Your task to perform on an android device: Go to sound settings Image 0: 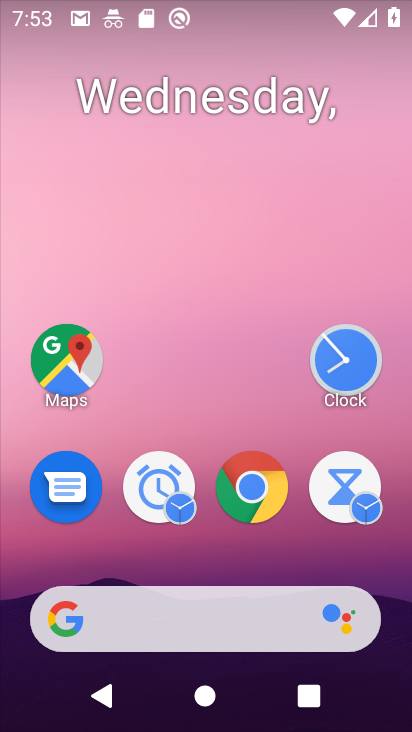
Step 0: drag from (355, 684) to (246, 103)
Your task to perform on an android device: Go to sound settings Image 1: 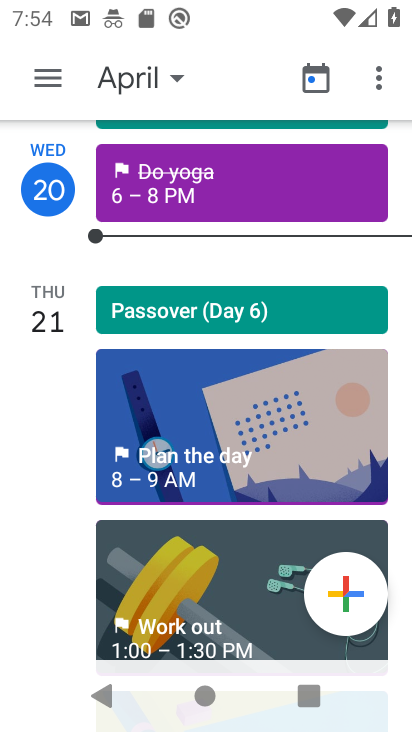
Step 1: press home button
Your task to perform on an android device: Go to sound settings Image 2: 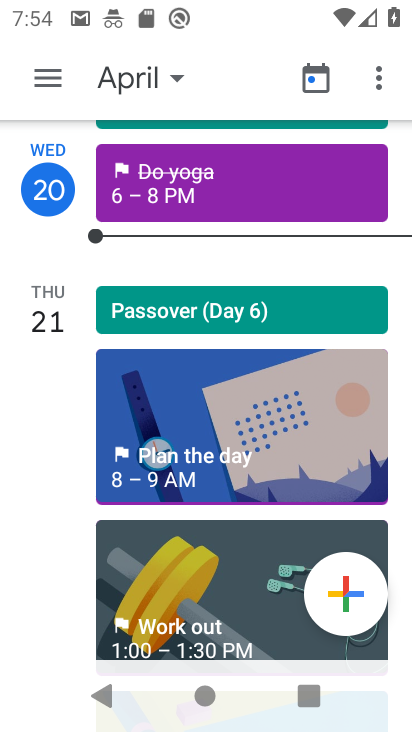
Step 2: press home button
Your task to perform on an android device: Go to sound settings Image 3: 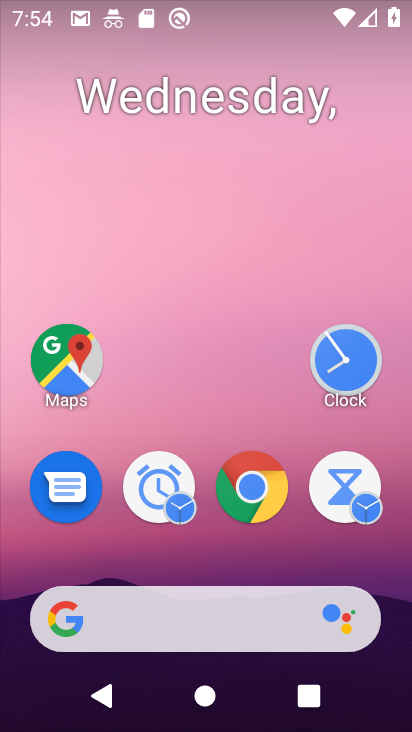
Step 3: drag from (165, 647) to (157, 244)
Your task to perform on an android device: Go to sound settings Image 4: 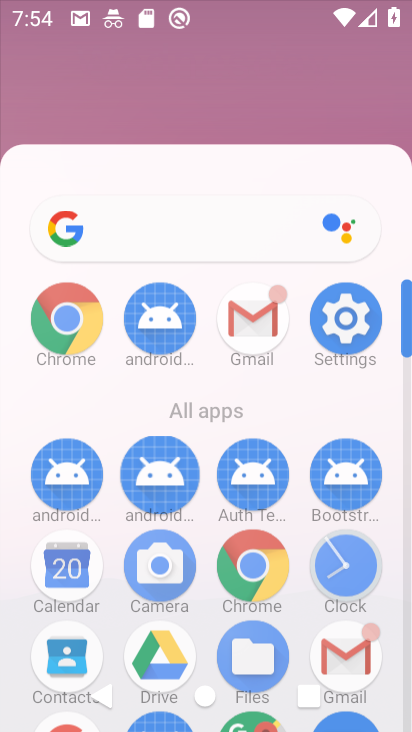
Step 4: drag from (265, 613) to (254, 110)
Your task to perform on an android device: Go to sound settings Image 5: 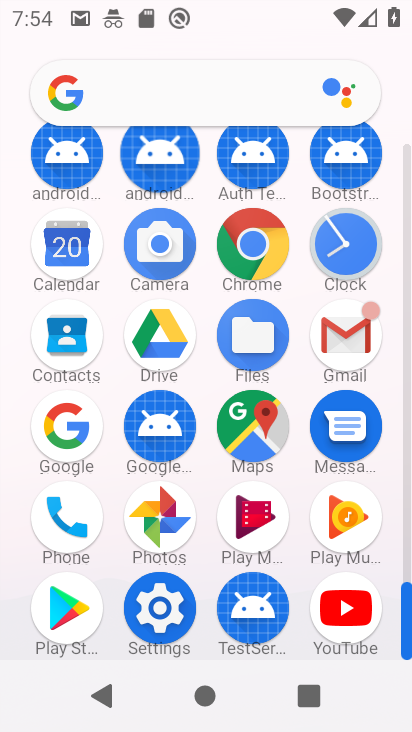
Step 5: click (159, 617)
Your task to perform on an android device: Go to sound settings Image 6: 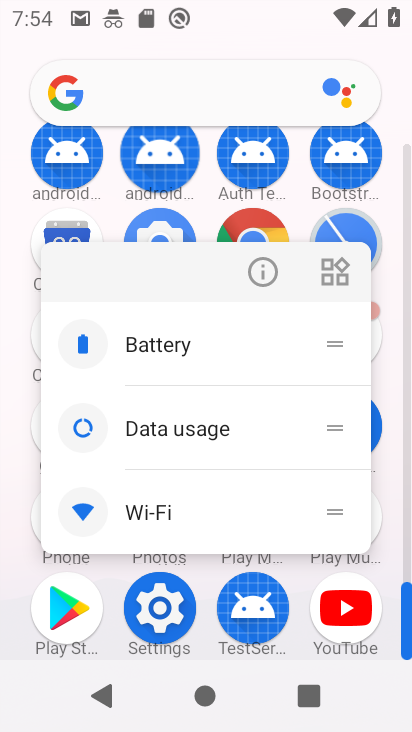
Step 6: click (159, 617)
Your task to perform on an android device: Go to sound settings Image 7: 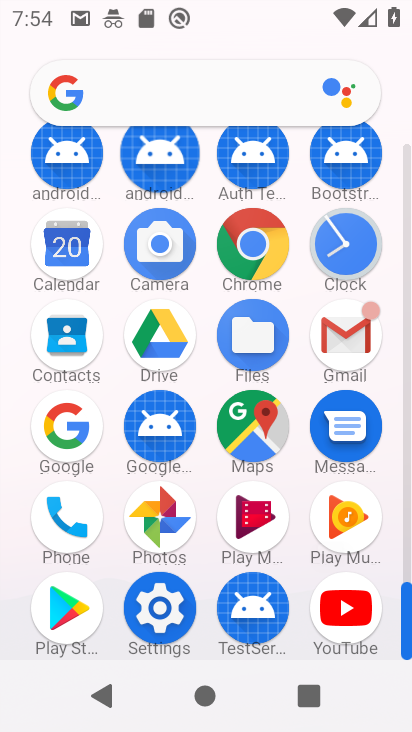
Step 7: click (159, 617)
Your task to perform on an android device: Go to sound settings Image 8: 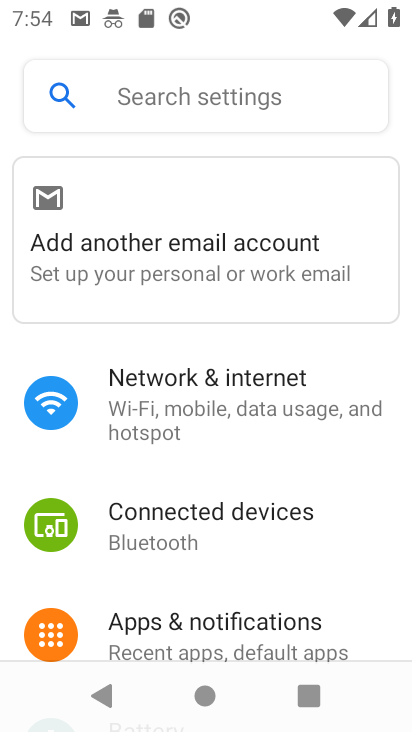
Step 8: drag from (203, 626) to (196, 291)
Your task to perform on an android device: Go to sound settings Image 9: 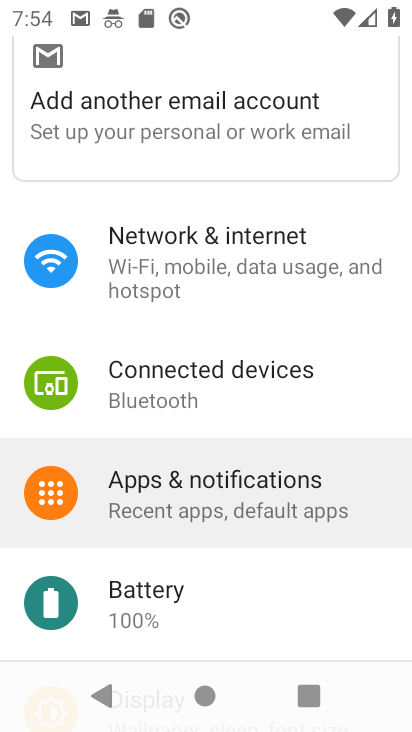
Step 9: drag from (177, 460) to (178, 307)
Your task to perform on an android device: Go to sound settings Image 10: 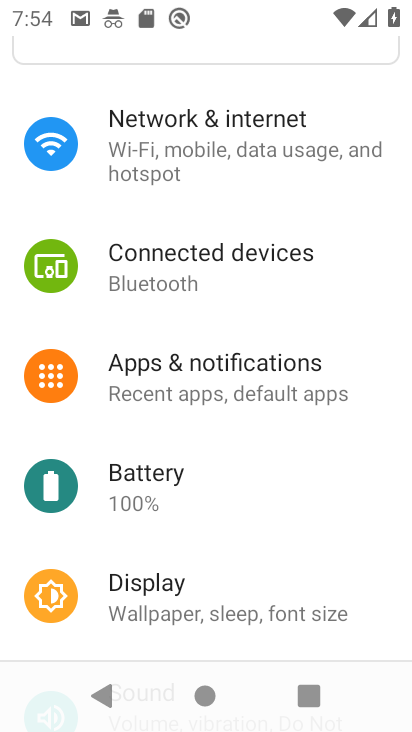
Step 10: drag from (204, 502) to (238, 231)
Your task to perform on an android device: Go to sound settings Image 11: 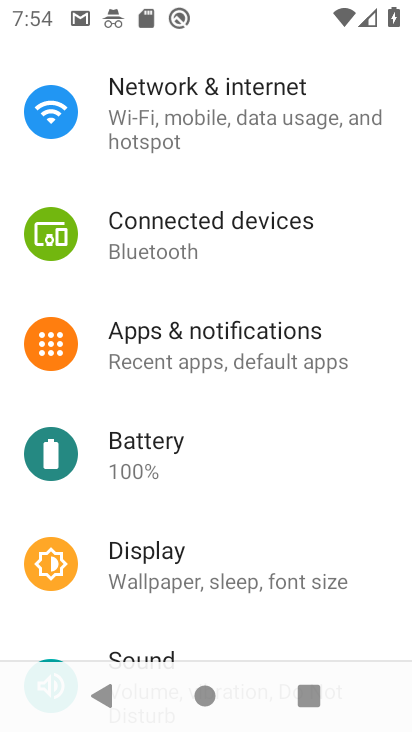
Step 11: drag from (252, 453) to (207, 259)
Your task to perform on an android device: Go to sound settings Image 12: 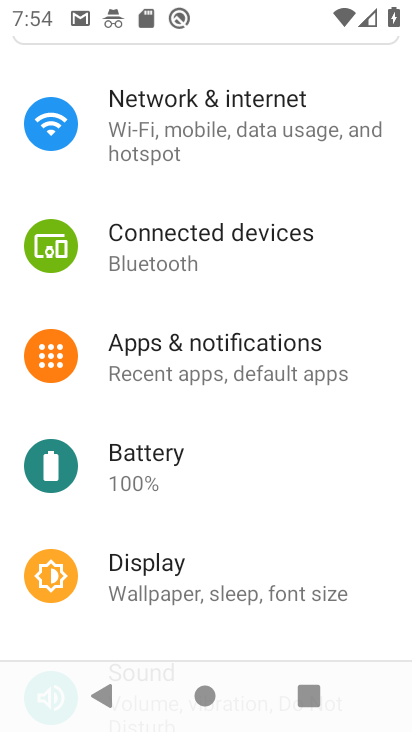
Step 12: drag from (167, 539) to (218, 243)
Your task to perform on an android device: Go to sound settings Image 13: 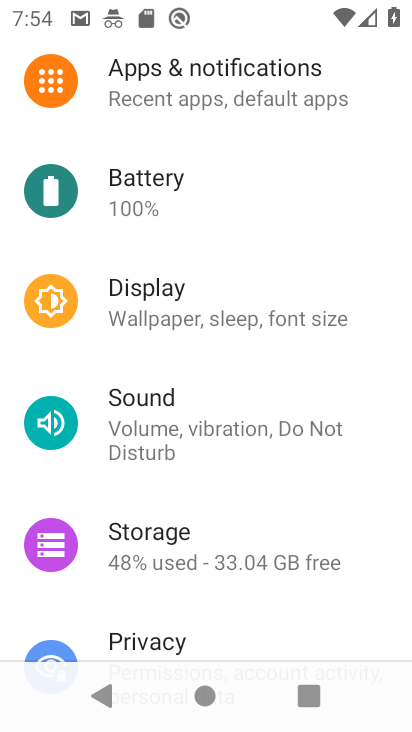
Step 13: click (155, 422)
Your task to perform on an android device: Go to sound settings Image 14: 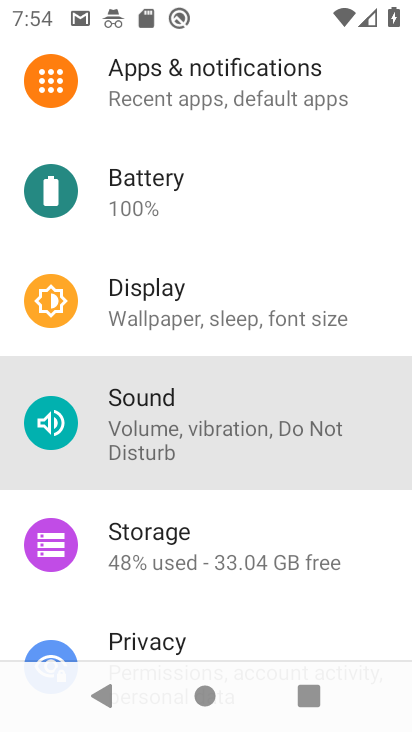
Step 14: click (155, 422)
Your task to perform on an android device: Go to sound settings Image 15: 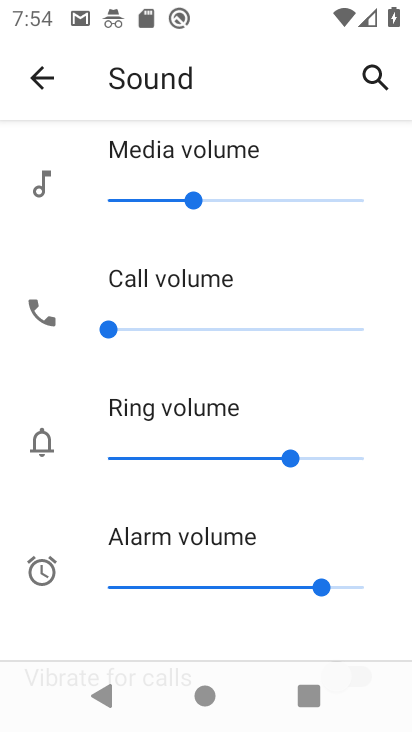
Step 15: task complete